Your task to perform on an android device: turn on notifications settings in the gmail app Image 0: 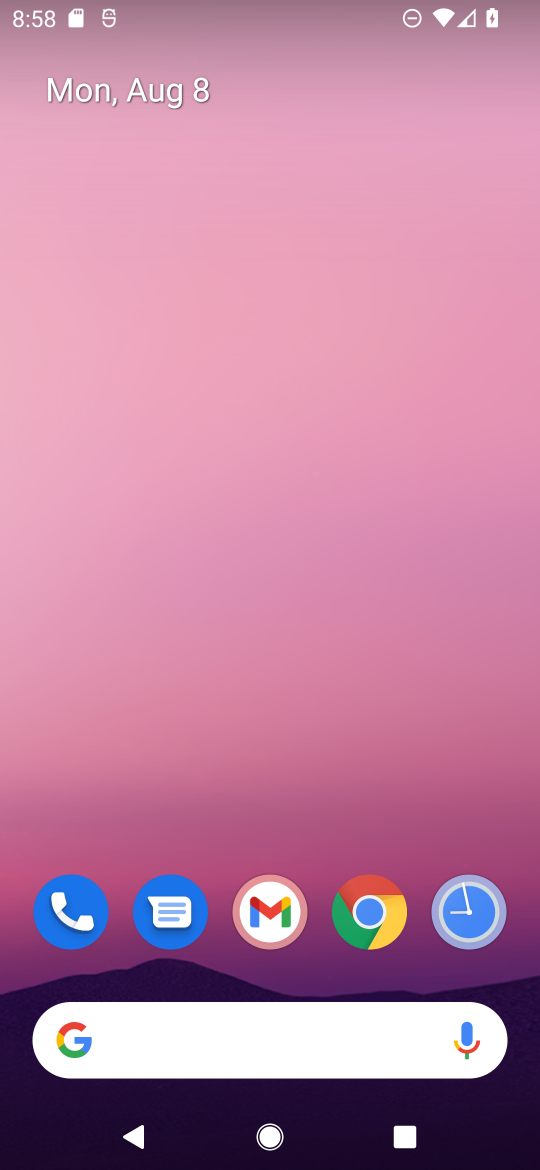
Step 0: drag from (475, 956) to (186, 58)
Your task to perform on an android device: turn on notifications settings in the gmail app Image 1: 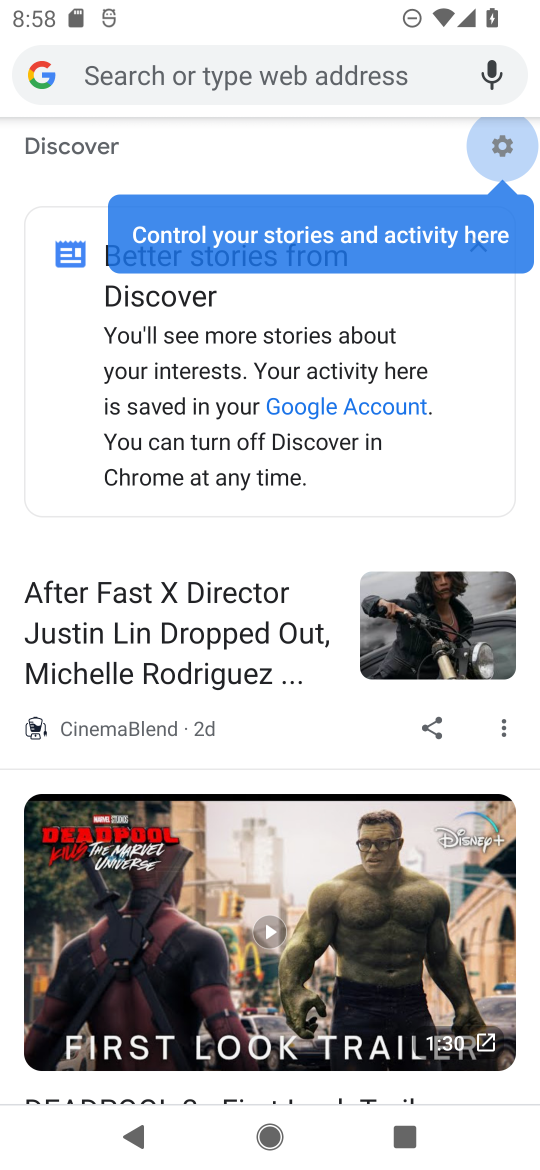
Step 1: press home button
Your task to perform on an android device: turn on notifications settings in the gmail app Image 2: 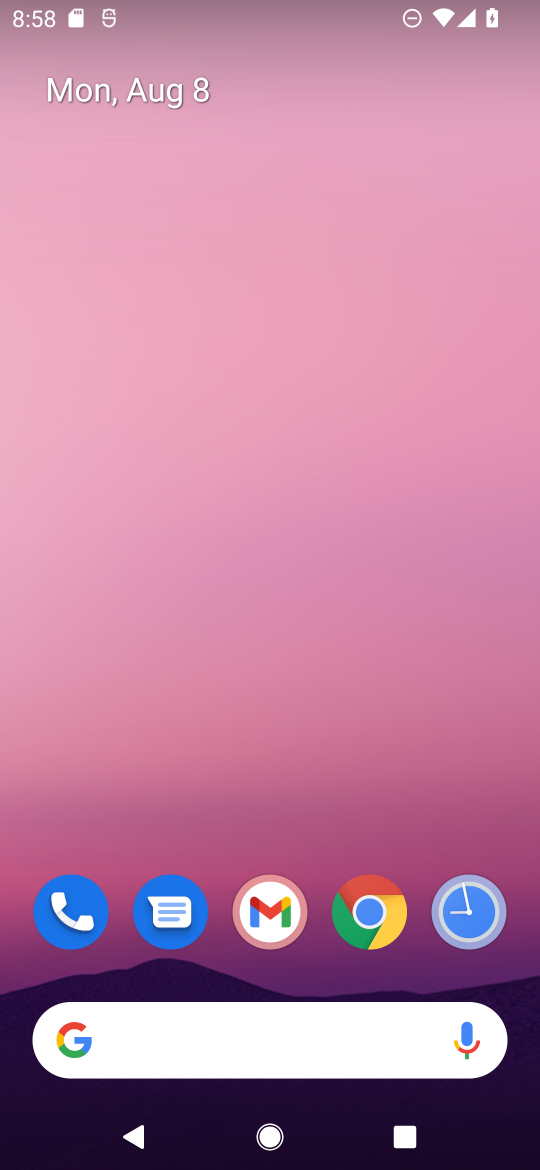
Step 2: drag from (432, 975) to (181, 90)
Your task to perform on an android device: turn on notifications settings in the gmail app Image 3: 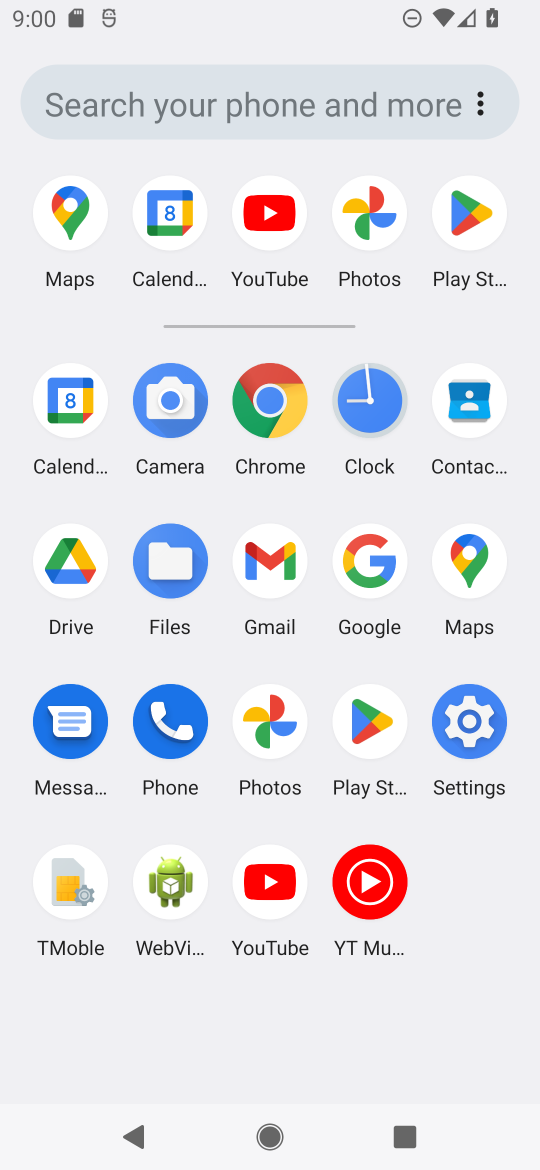
Step 3: click (271, 587)
Your task to perform on an android device: turn on notifications settings in the gmail app Image 4: 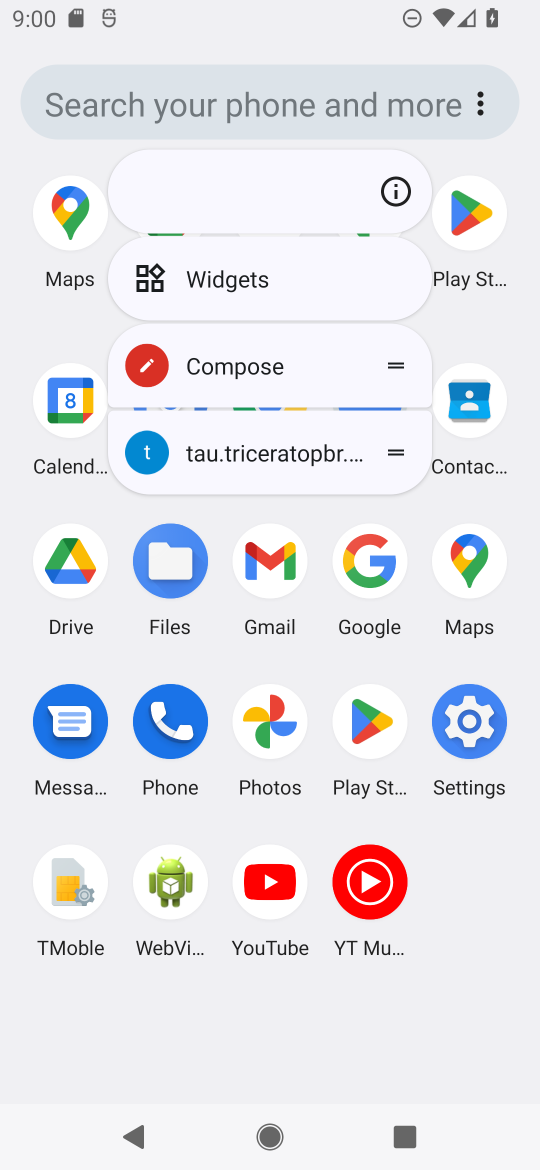
Step 4: click (271, 587)
Your task to perform on an android device: turn on notifications settings in the gmail app Image 5: 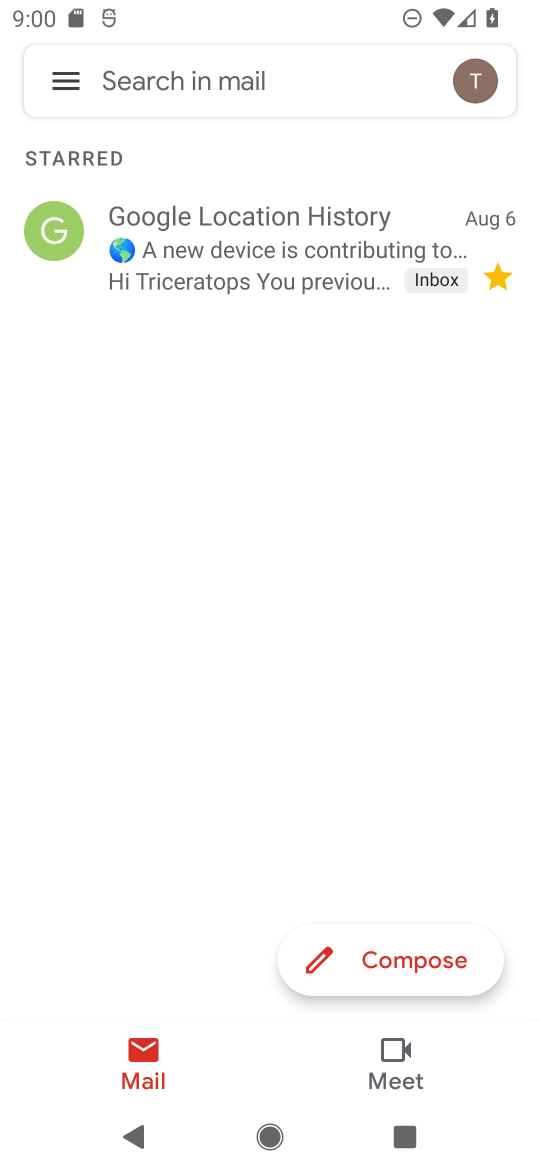
Step 5: click (61, 98)
Your task to perform on an android device: turn on notifications settings in the gmail app Image 6: 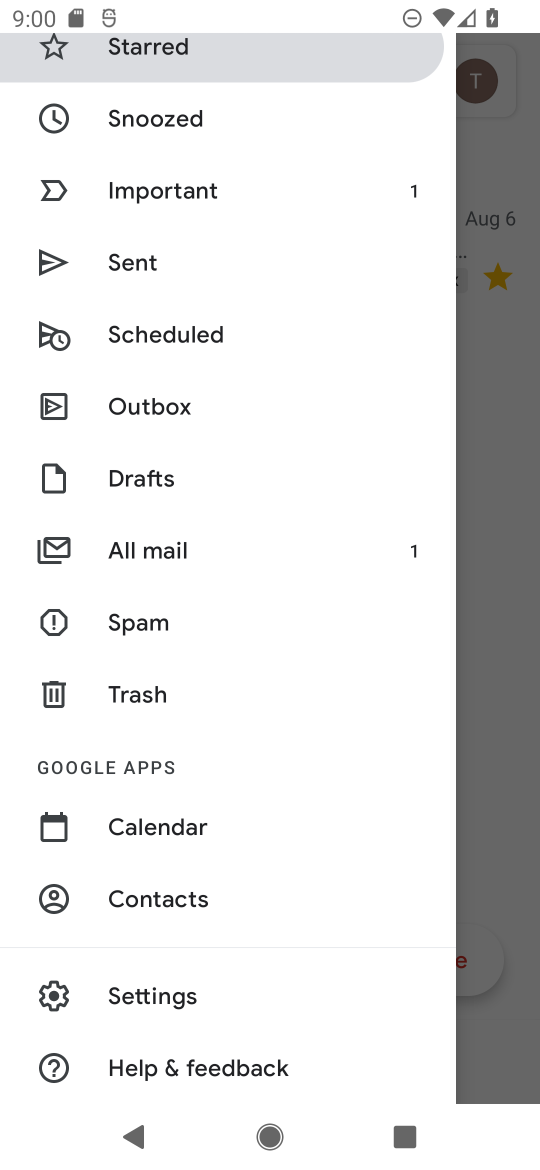
Step 6: click (159, 1014)
Your task to perform on an android device: turn on notifications settings in the gmail app Image 7: 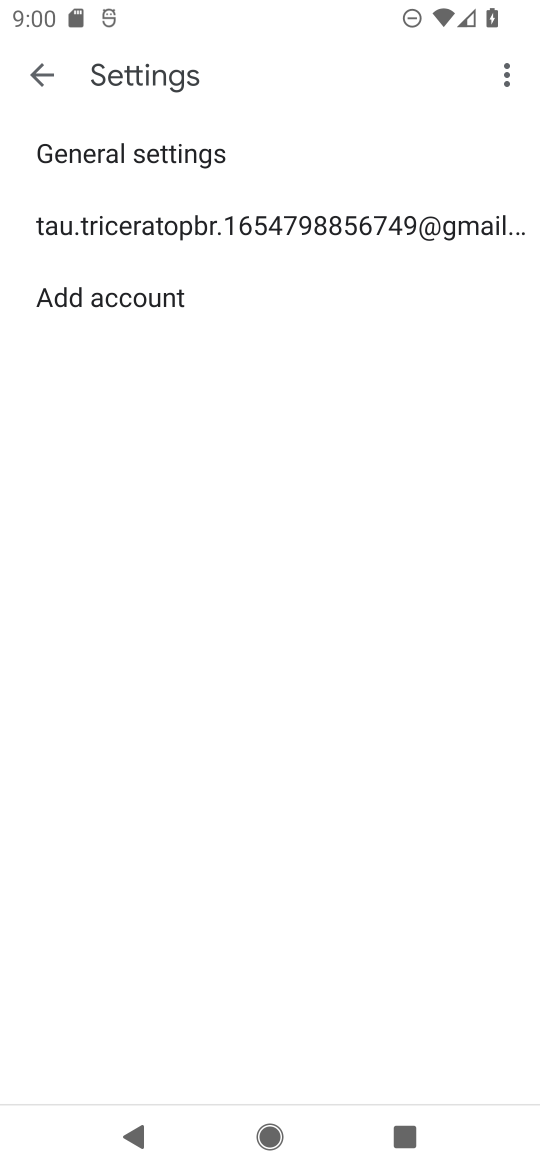
Step 7: click (158, 245)
Your task to perform on an android device: turn on notifications settings in the gmail app Image 8: 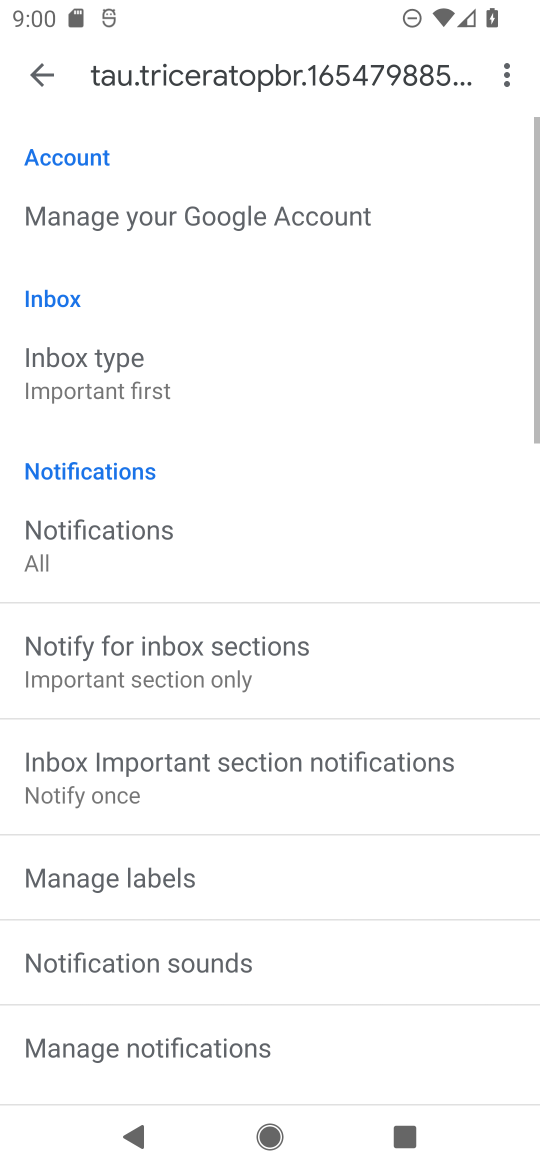
Step 8: click (139, 548)
Your task to perform on an android device: turn on notifications settings in the gmail app Image 9: 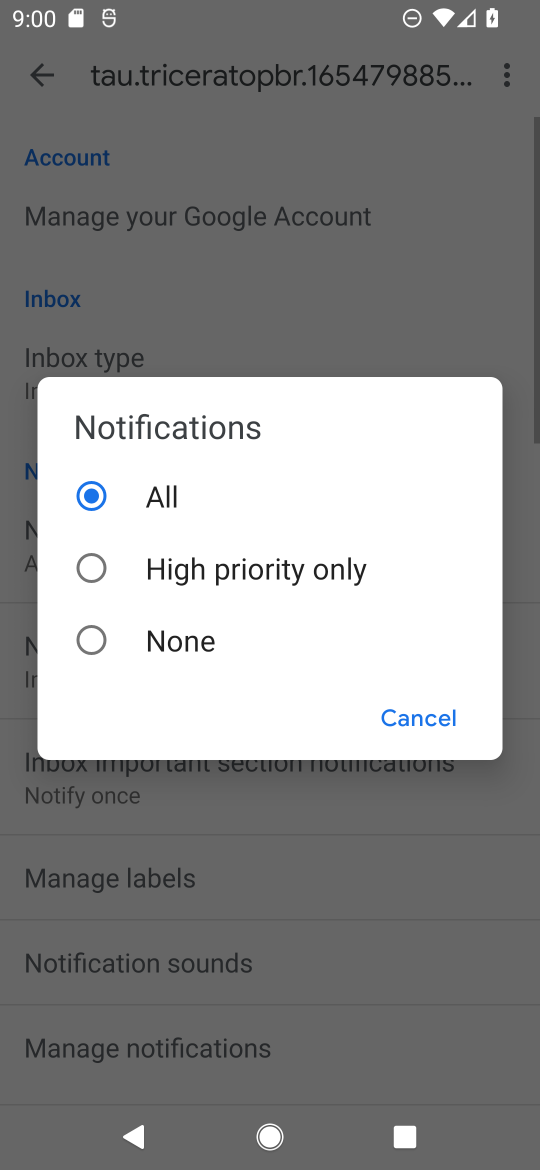
Step 9: click (146, 509)
Your task to perform on an android device: turn on notifications settings in the gmail app Image 10: 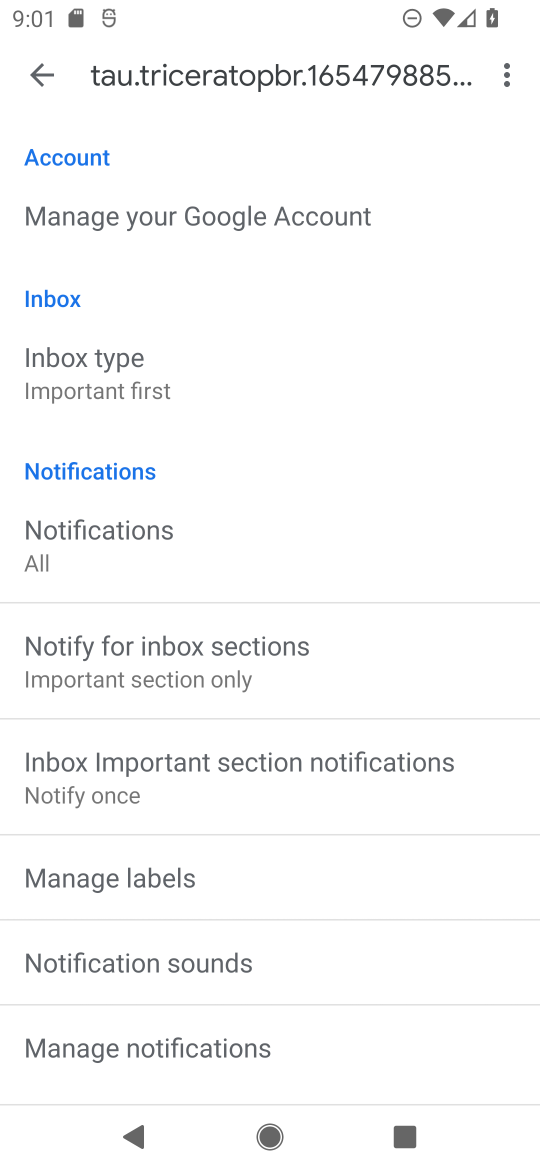
Step 10: task complete